Your task to perform on an android device: Open Google Chrome Image 0: 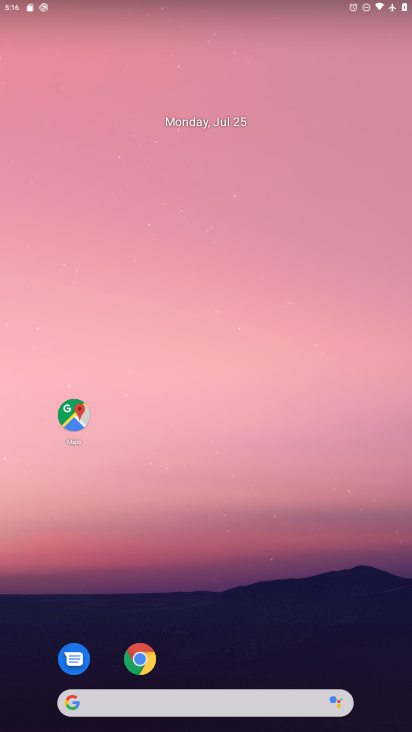
Step 0: click (143, 664)
Your task to perform on an android device: Open Google Chrome Image 1: 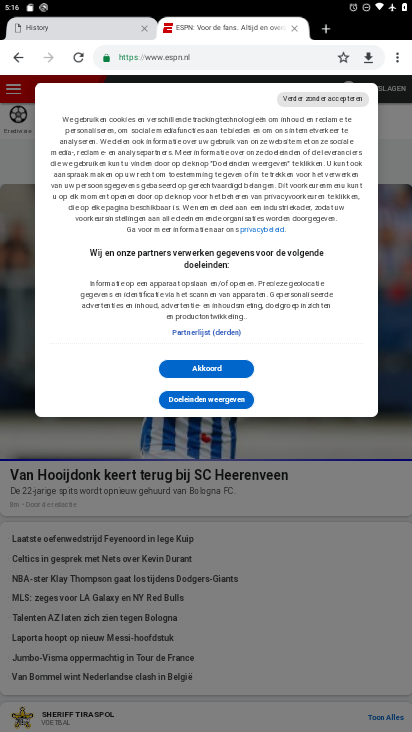
Step 1: task complete